Your task to perform on an android device: toggle show notifications on the lock screen Image 0: 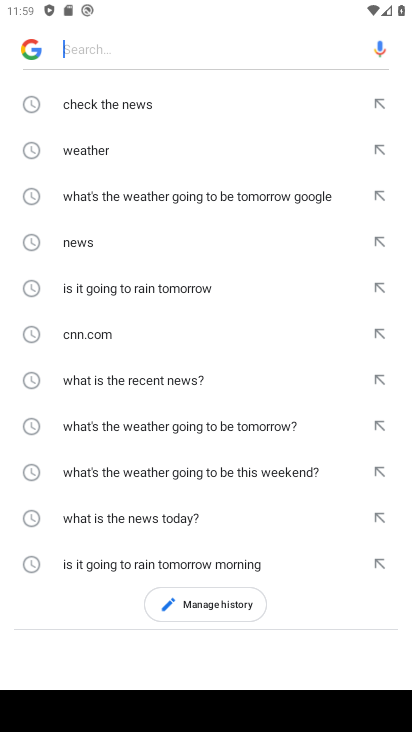
Step 0: press home button
Your task to perform on an android device: toggle show notifications on the lock screen Image 1: 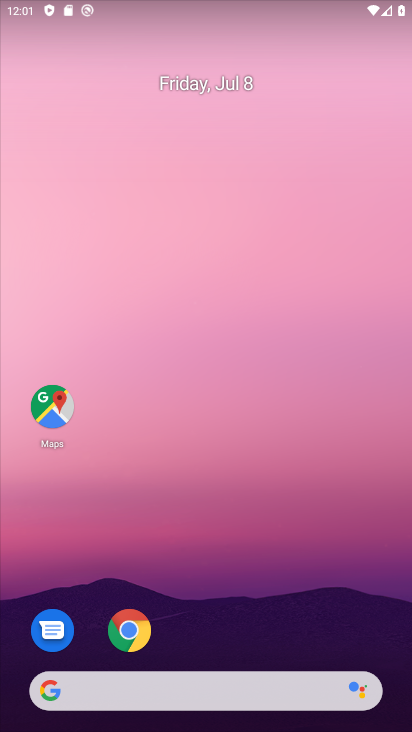
Step 1: drag from (390, 675) to (211, 2)
Your task to perform on an android device: toggle show notifications on the lock screen Image 2: 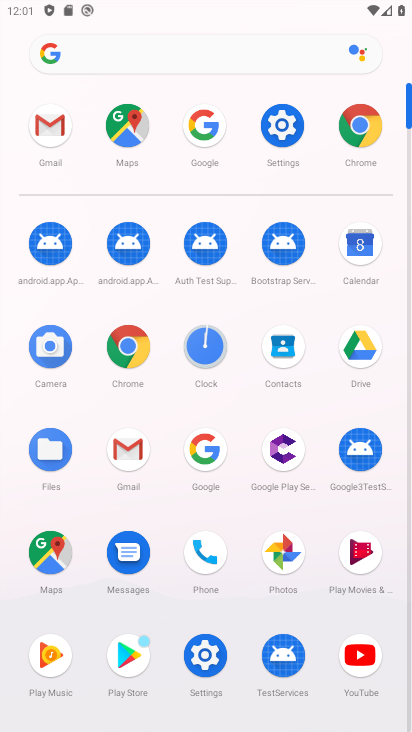
Step 2: click (216, 651)
Your task to perform on an android device: toggle show notifications on the lock screen Image 3: 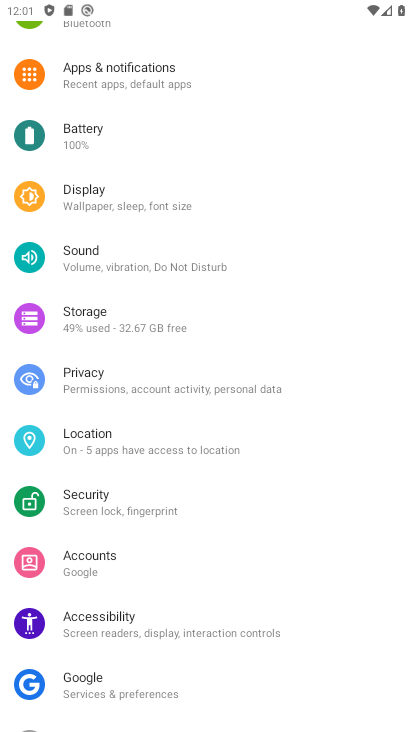
Step 3: click (135, 82)
Your task to perform on an android device: toggle show notifications on the lock screen Image 4: 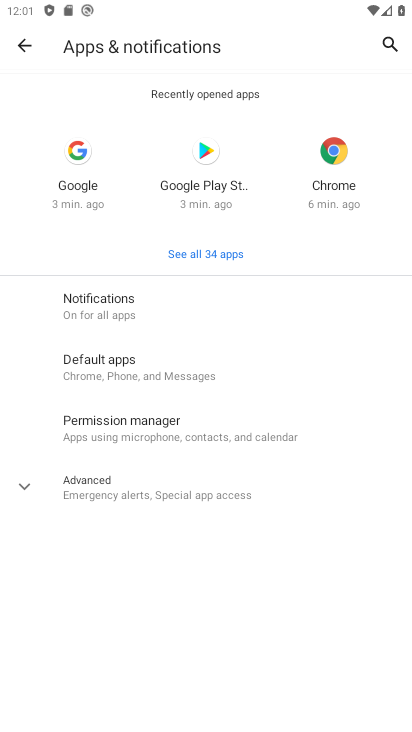
Step 4: click (146, 319)
Your task to perform on an android device: toggle show notifications on the lock screen Image 5: 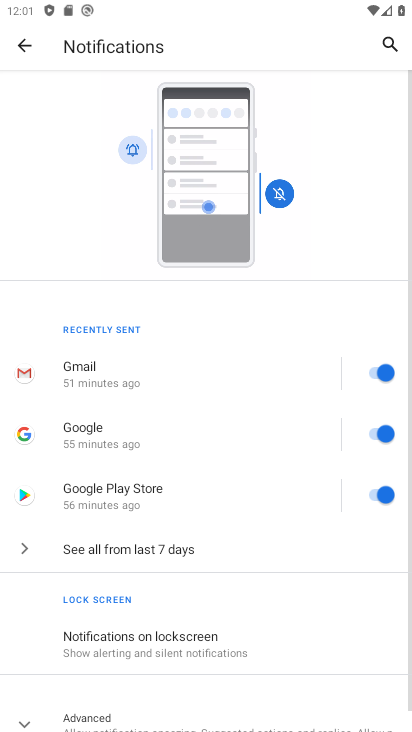
Step 5: click (181, 658)
Your task to perform on an android device: toggle show notifications on the lock screen Image 6: 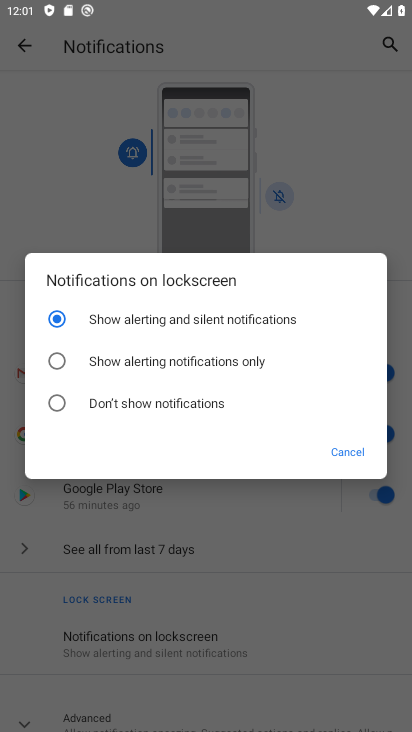
Step 6: click (49, 405)
Your task to perform on an android device: toggle show notifications on the lock screen Image 7: 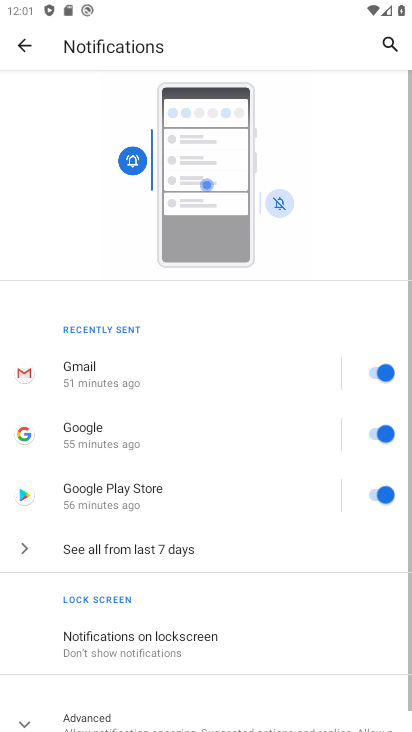
Step 7: task complete